Your task to perform on an android device: find snoozed emails in the gmail app Image 0: 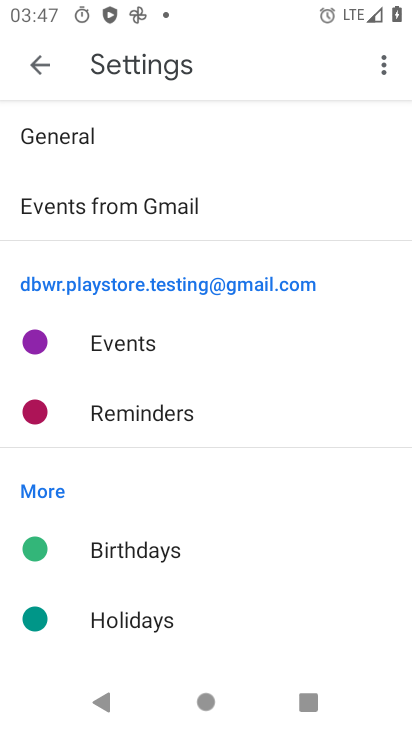
Step 0: drag from (230, 628) to (385, 44)
Your task to perform on an android device: find snoozed emails in the gmail app Image 1: 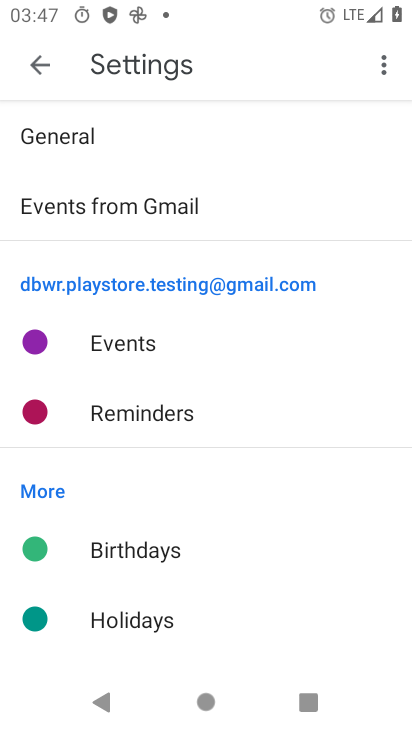
Step 1: press home button
Your task to perform on an android device: find snoozed emails in the gmail app Image 2: 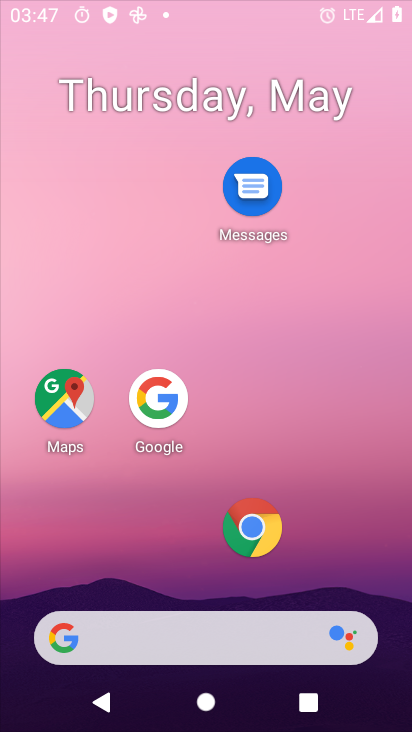
Step 2: drag from (244, 603) to (331, 90)
Your task to perform on an android device: find snoozed emails in the gmail app Image 3: 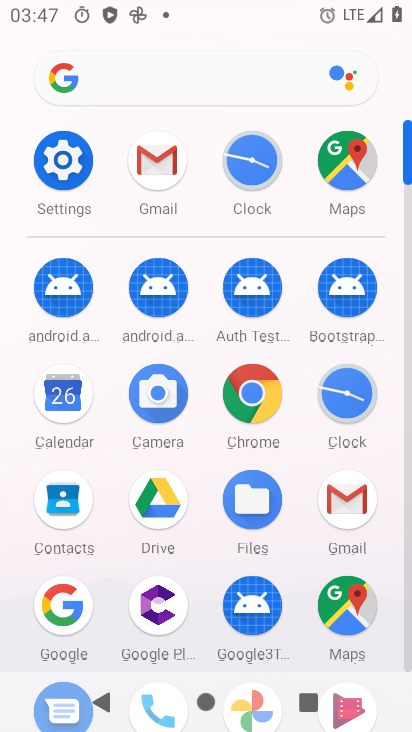
Step 3: click (347, 492)
Your task to perform on an android device: find snoozed emails in the gmail app Image 4: 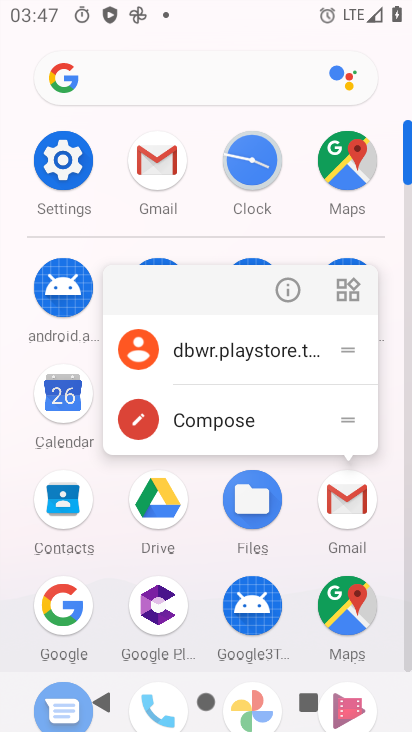
Step 4: click (279, 297)
Your task to perform on an android device: find snoozed emails in the gmail app Image 5: 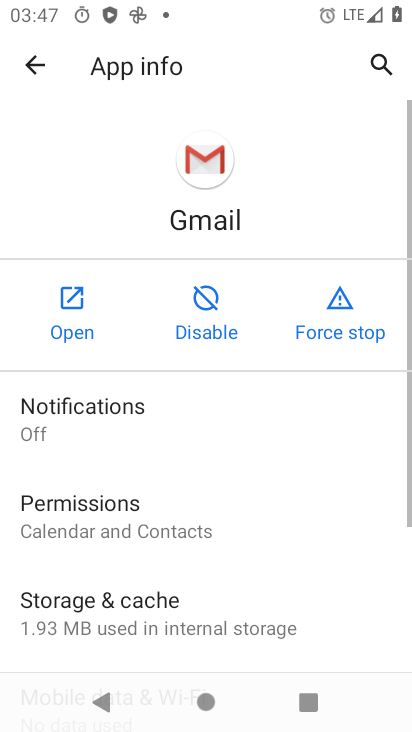
Step 5: click (54, 331)
Your task to perform on an android device: find snoozed emails in the gmail app Image 6: 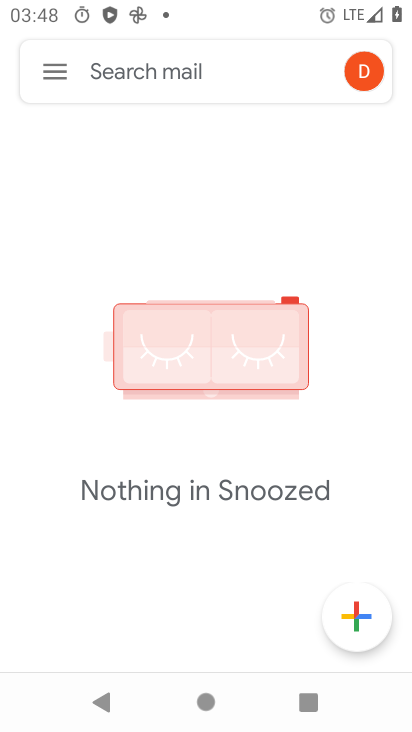
Step 6: click (60, 85)
Your task to perform on an android device: find snoozed emails in the gmail app Image 7: 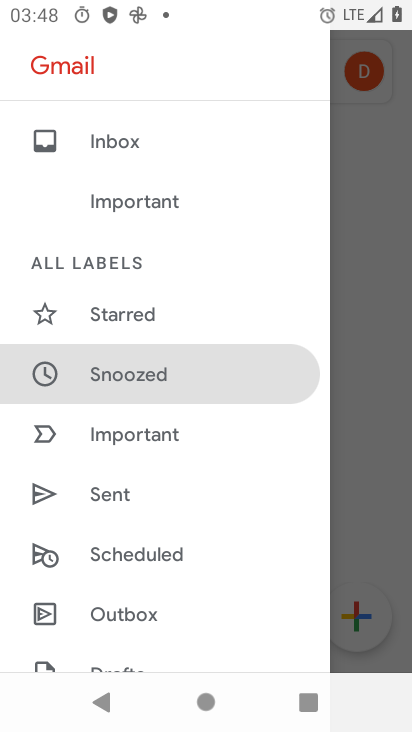
Step 7: click (154, 384)
Your task to perform on an android device: find snoozed emails in the gmail app Image 8: 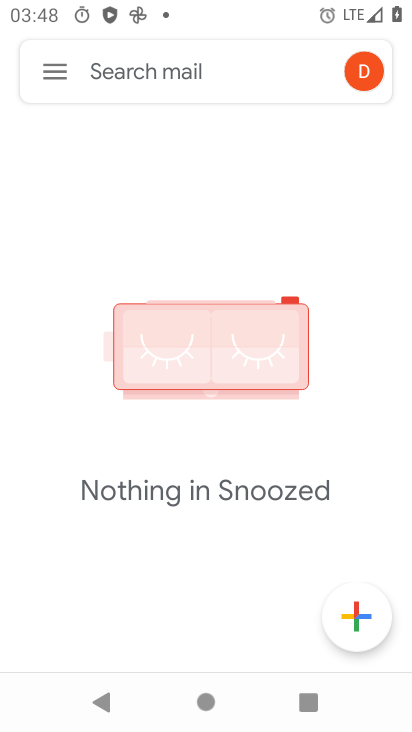
Step 8: task complete